Your task to perform on an android device: Show me recent news Image 0: 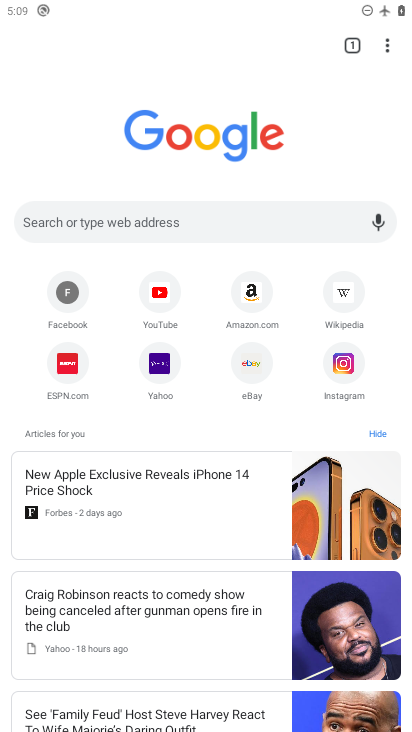
Step 0: press home button
Your task to perform on an android device: Show me recent news Image 1: 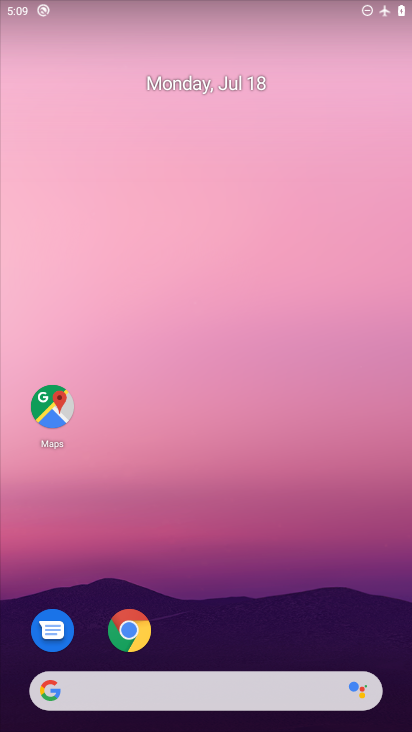
Step 1: task complete